Your task to perform on an android device: turn off smart reply in the gmail app Image 0: 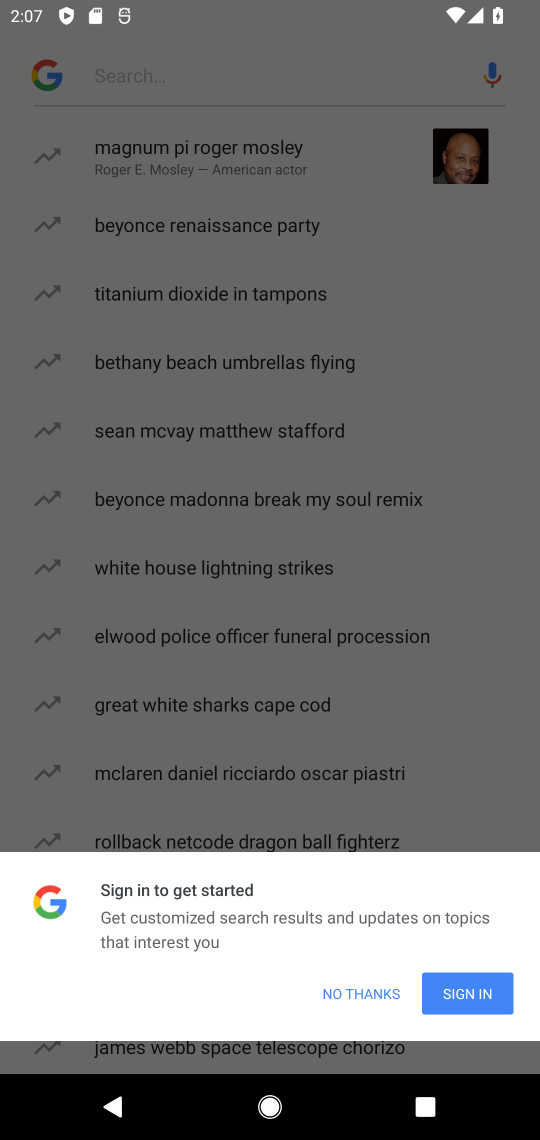
Step 0: press home button
Your task to perform on an android device: turn off smart reply in the gmail app Image 1: 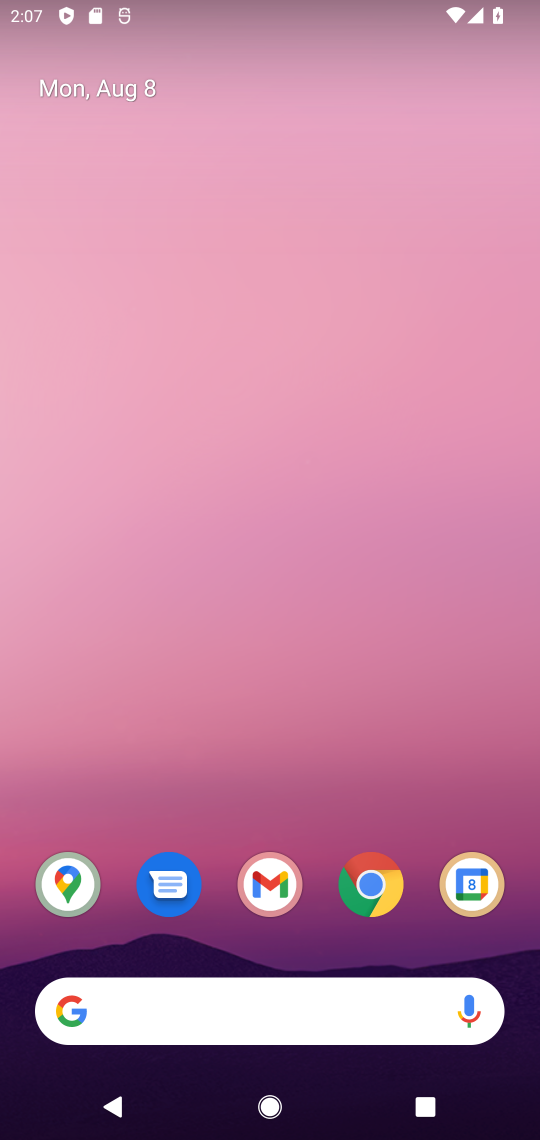
Step 1: click (266, 884)
Your task to perform on an android device: turn off smart reply in the gmail app Image 2: 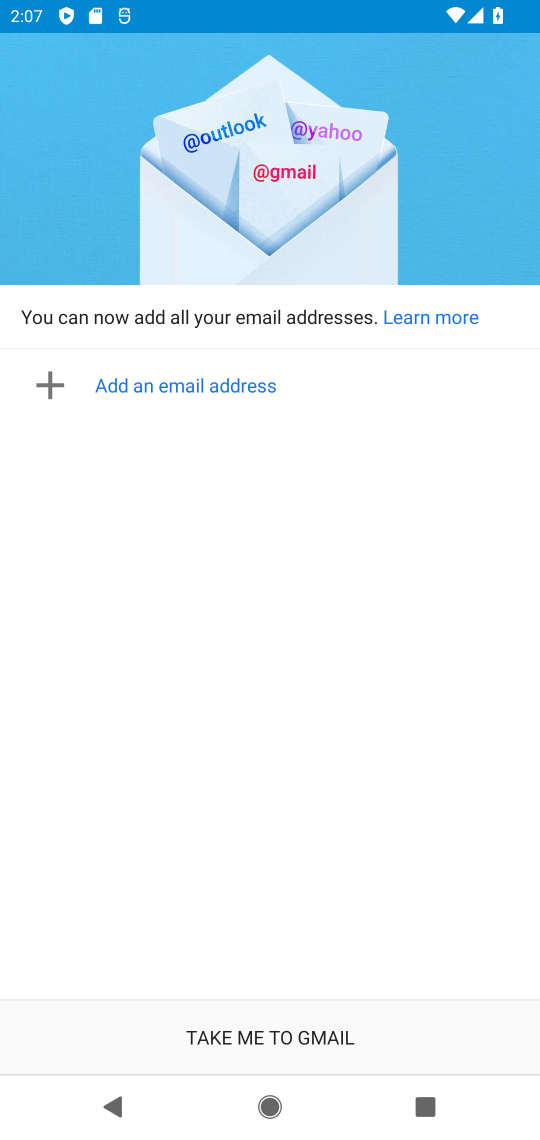
Step 2: click (244, 1027)
Your task to perform on an android device: turn off smart reply in the gmail app Image 3: 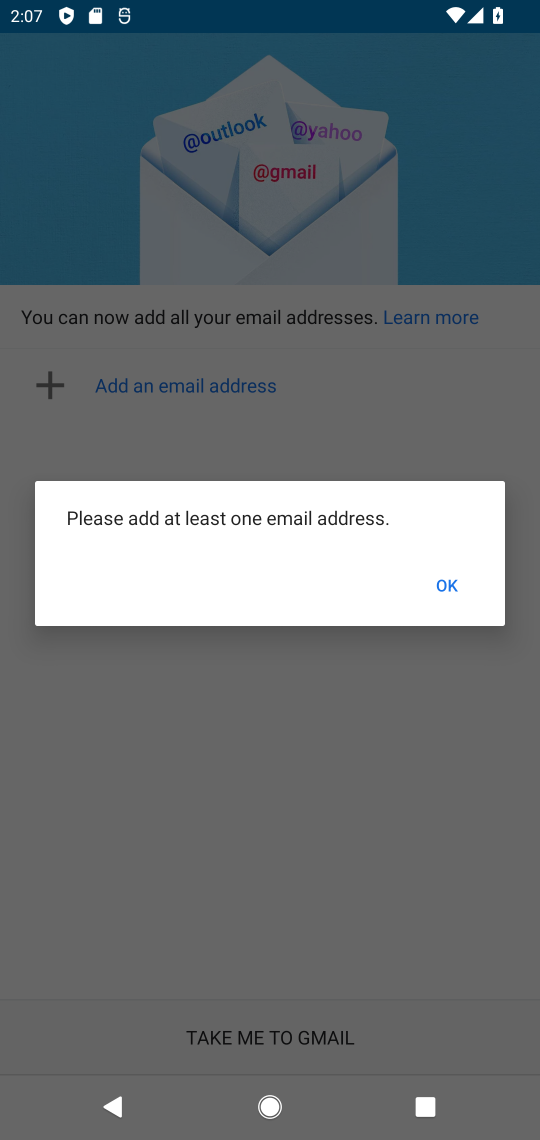
Step 3: click (447, 582)
Your task to perform on an android device: turn off smart reply in the gmail app Image 4: 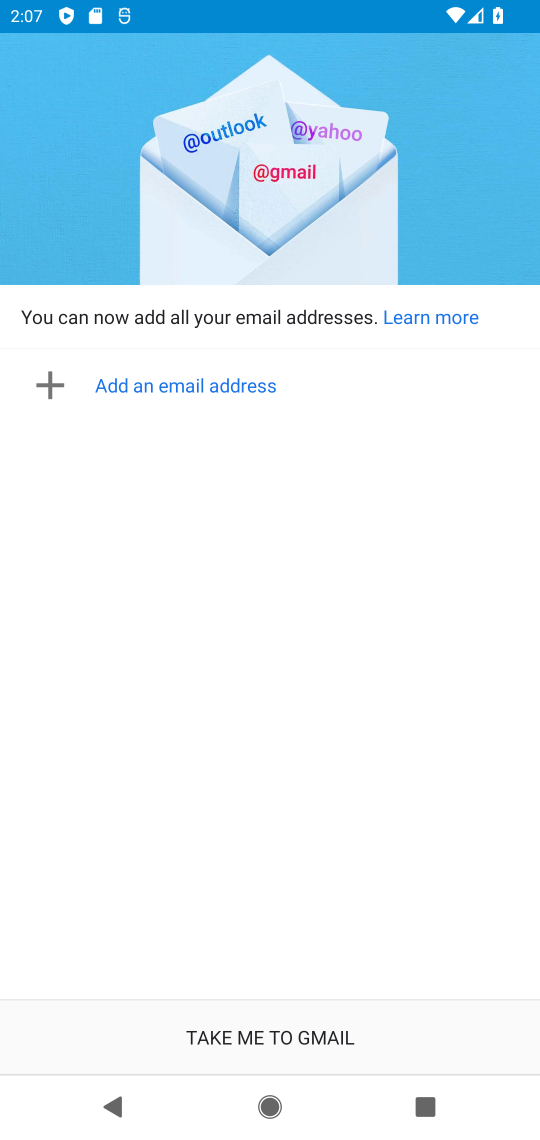
Step 4: click (289, 1030)
Your task to perform on an android device: turn off smart reply in the gmail app Image 5: 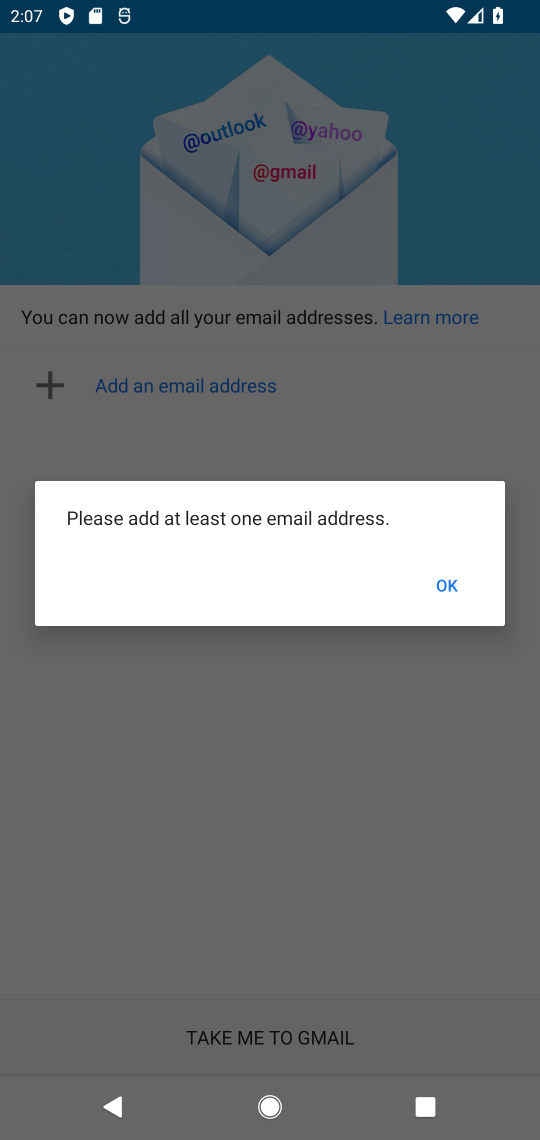
Step 5: click (444, 580)
Your task to perform on an android device: turn off smart reply in the gmail app Image 6: 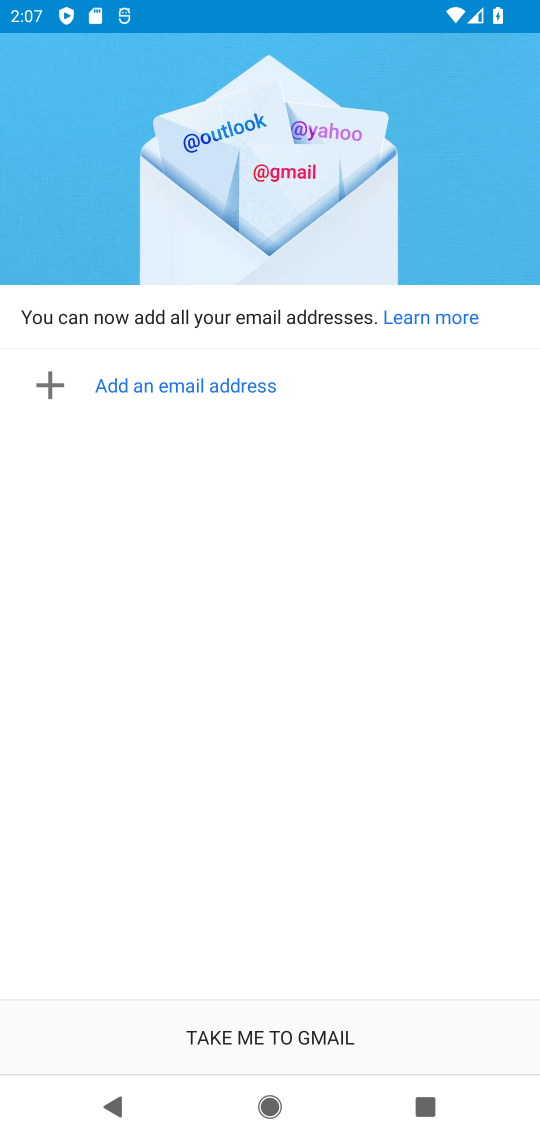
Step 6: click (271, 1033)
Your task to perform on an android device: turn off smart reply in the gmail app Image 7: 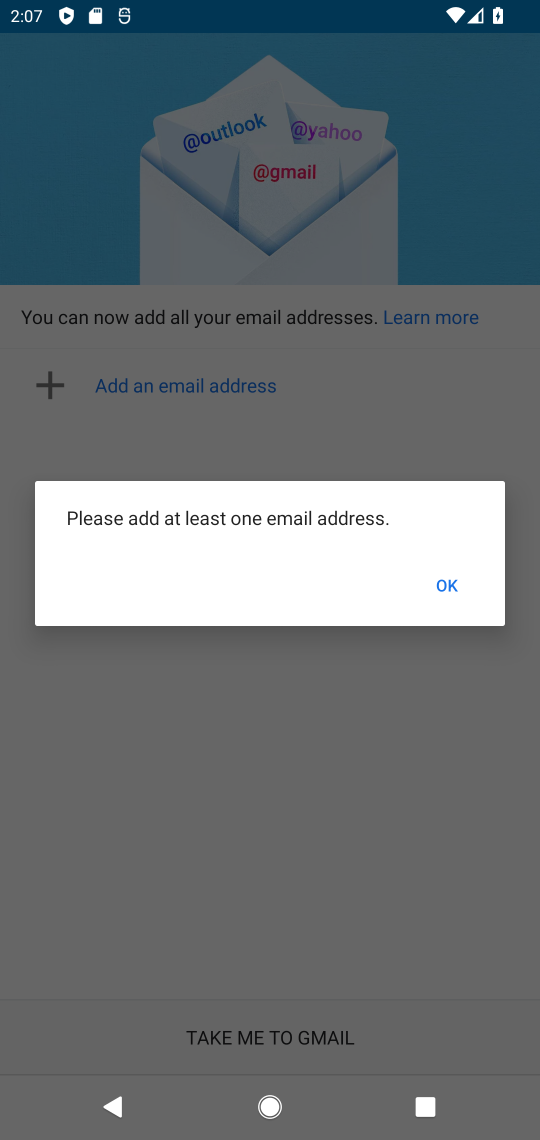
Step 7: click (439, 591)
Your task to perform on an android device: turn off smart reply in the gmail app Image 8: 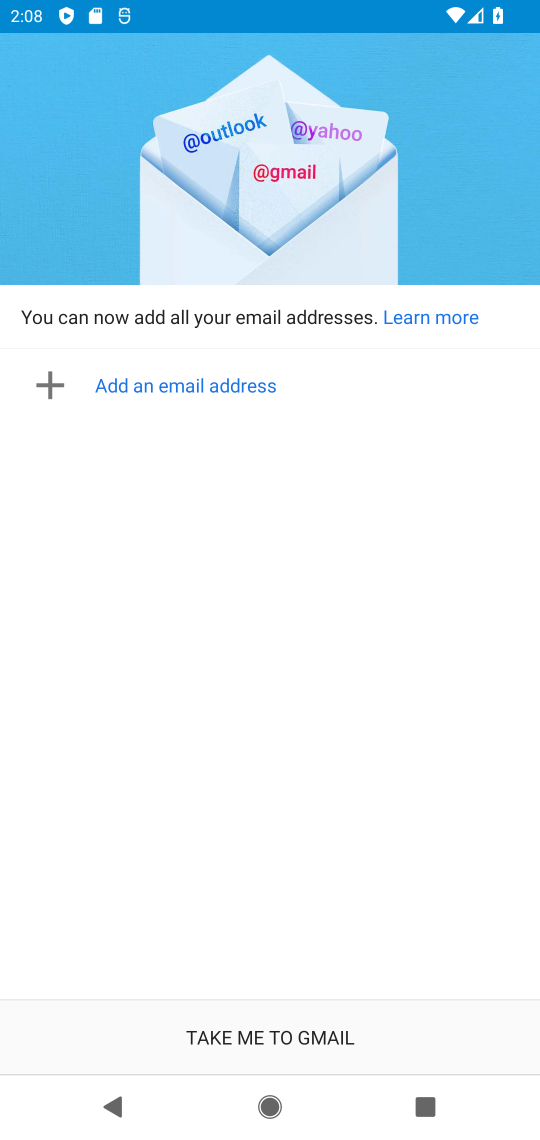
Step 8: task complete